Your task to perform on an android device: toggle show notifications on the lock screen Image 0: 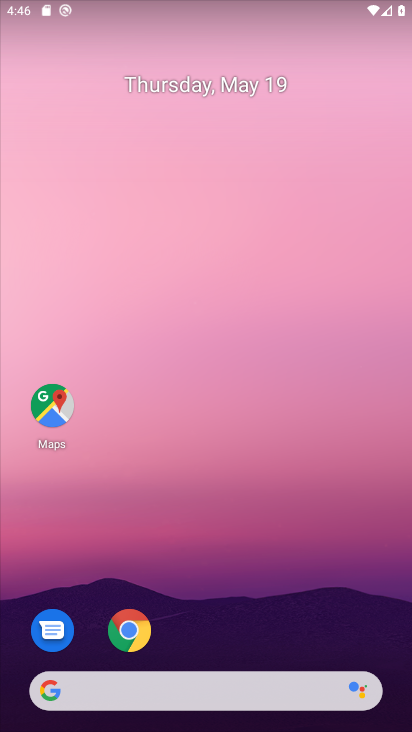
Step 0: drag from (310, 570) to (275, 1)
Your task to perform on an android device: toggle show notifications on the lock screen Image 1: 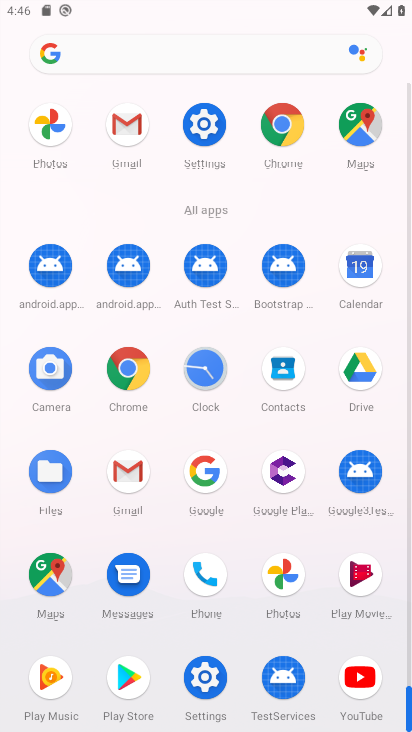
Step 1: click (203, 116)
Your task to perform on an android device: toggle show notifications on the lock screen Image 2: 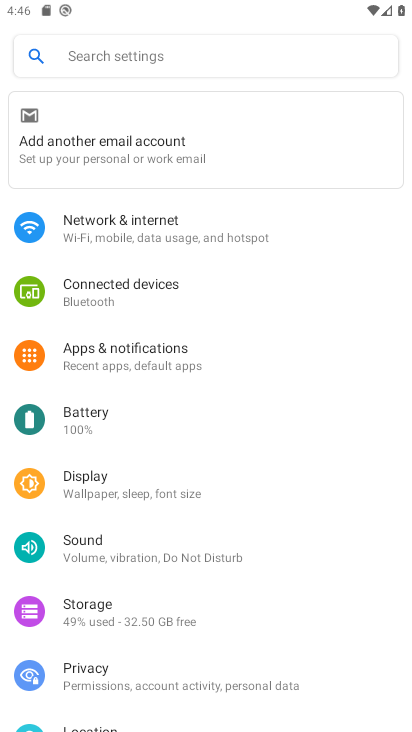
Step 2: click (172, 346)
Your task to perform on an android device: toggle show notifications on the lock screen Image 3: 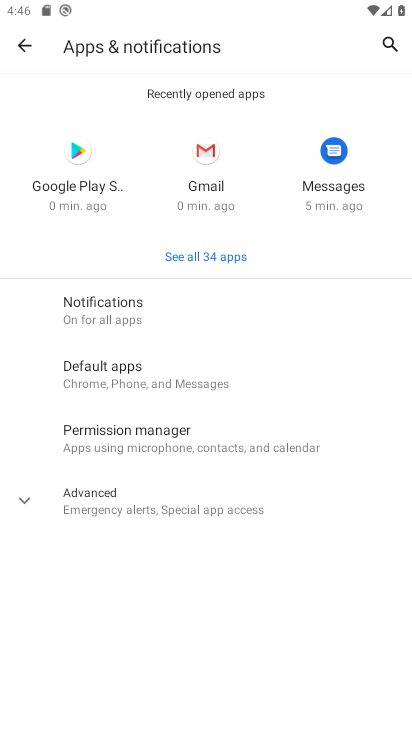
Step 3: click (145, 320)
Your task to perform on an android device: toggle show notifications on the lock screen Image 4: 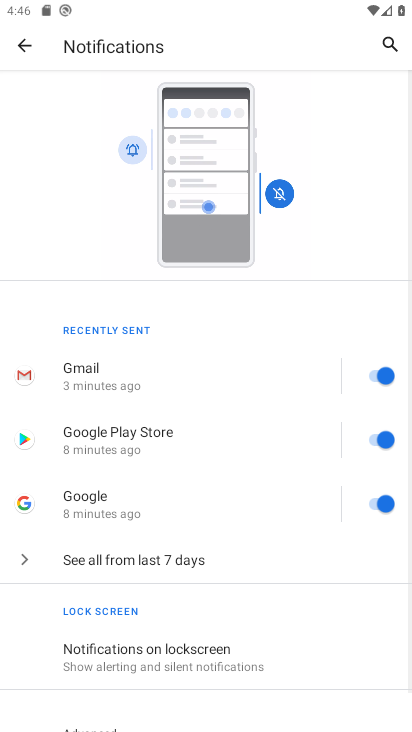
Step 4: drag from (232, 567) to (256, 165)
Your task to perform on an android device: toggle show notifications on the lock screen Image 5: 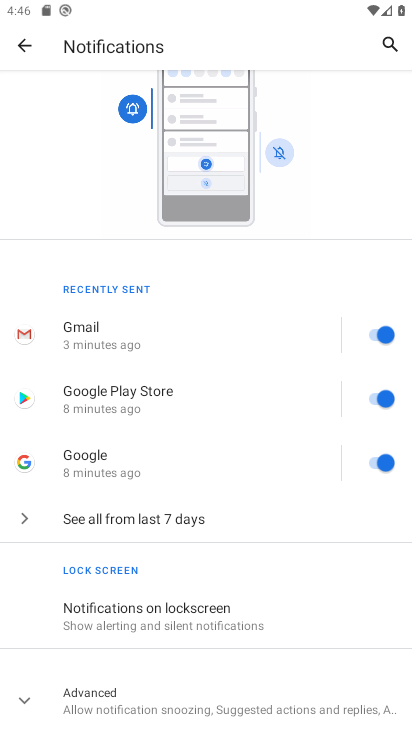
Step 5: click (176, 615)
Your task to perform on an android device: toggle show notifications on the lock screen Image 6: 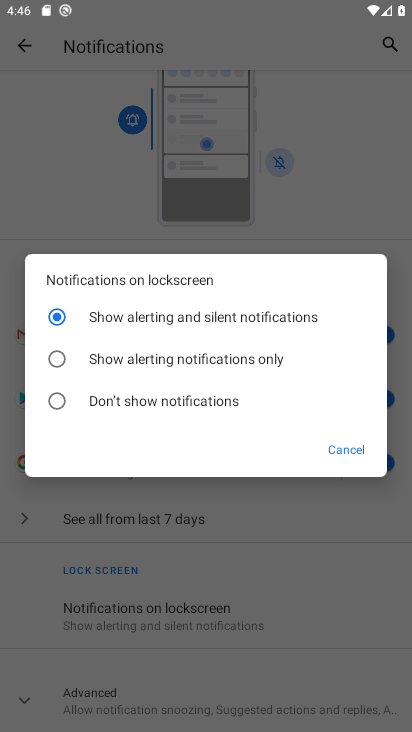
Step 6: click (152, 315)
Your task to perform on an android device: toggle show notifications on the lock screen Image 7: 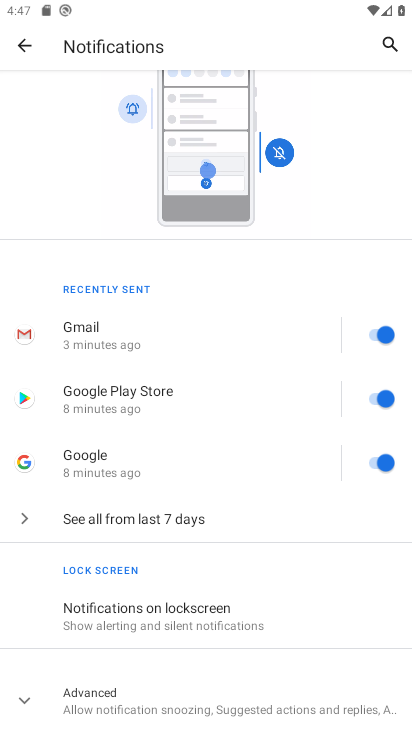
Step 7: task complete